Your task to perform on an android device: open a bookmark in the chrome app Image 0: 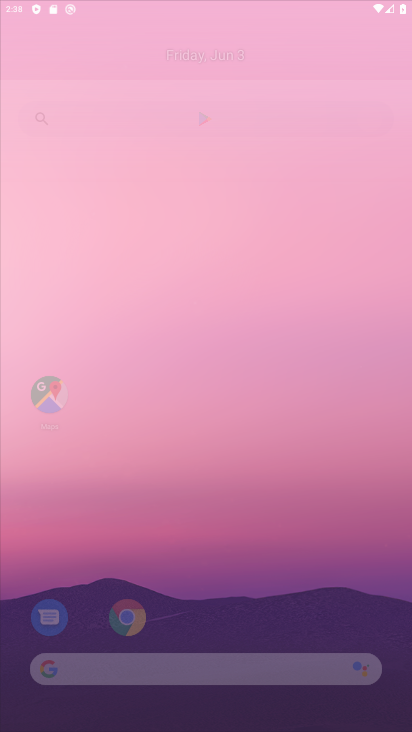
Step 0: press back button
Your task to perform on an android device: open a bookmark in the chrome app Image 1: 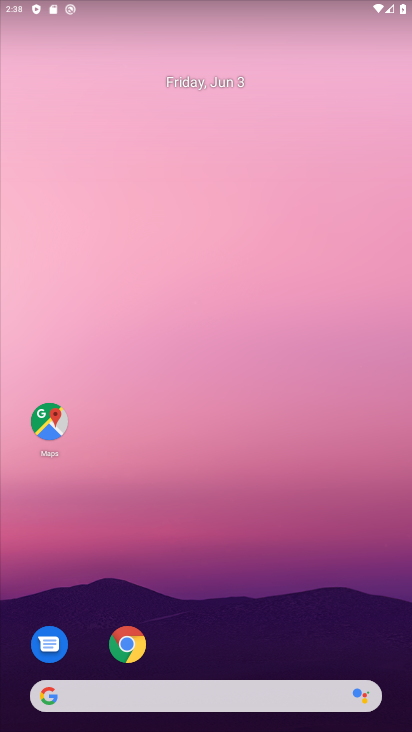
Step 1: click (139, 653)
Your task to perform on an android device: open a bookmark in the chrome app Image 2: 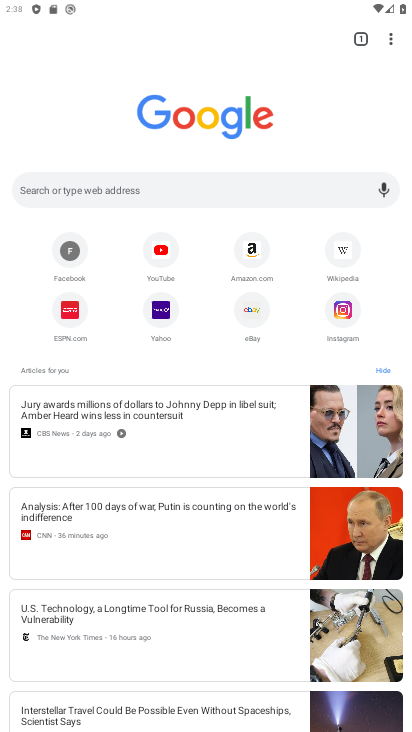
Step 2: click (384, 39)
Your task to perform on an android device: open a bookmark in the chrome app Image 3: 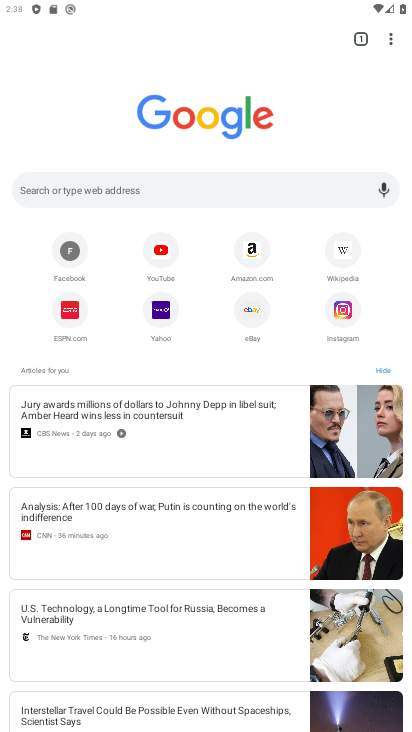
Step 3: click (390, 41)
Your task to perform on an android device: open a bookmark in the chrome app Image 4: 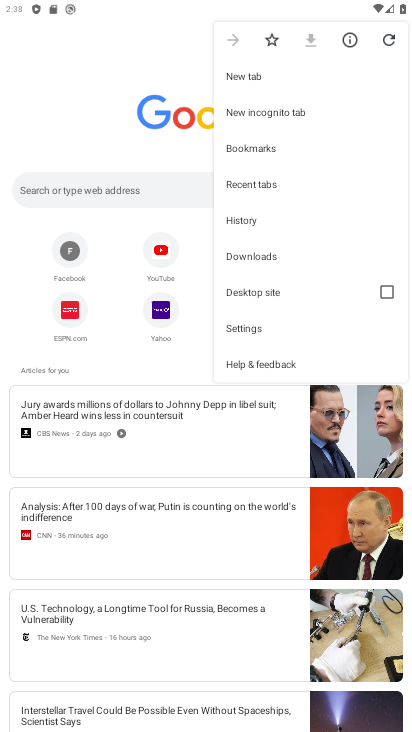
Step 4: click (263, 142)
Your task to perform on an android device: open a bookmark in the chrome app Image 5: 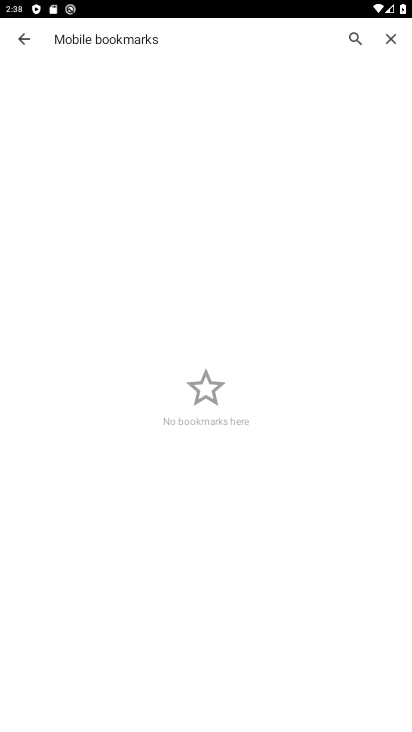
Step 5: task complete